Your task to perform on an android device: Open Google Maps Image 0: 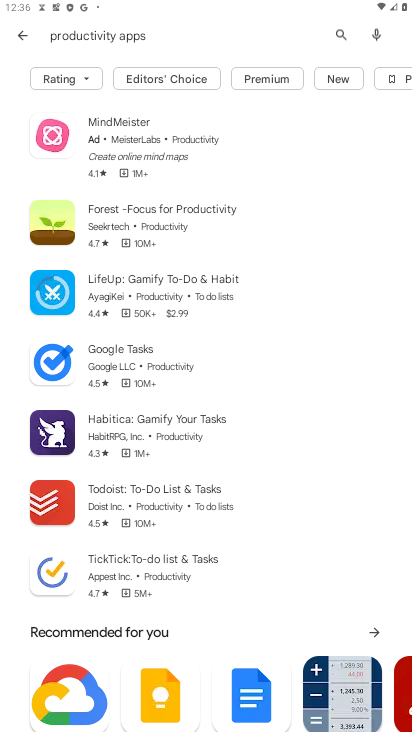
Step 0: press home button
Your task to perform on an android device: Open Google Maps Image 1: 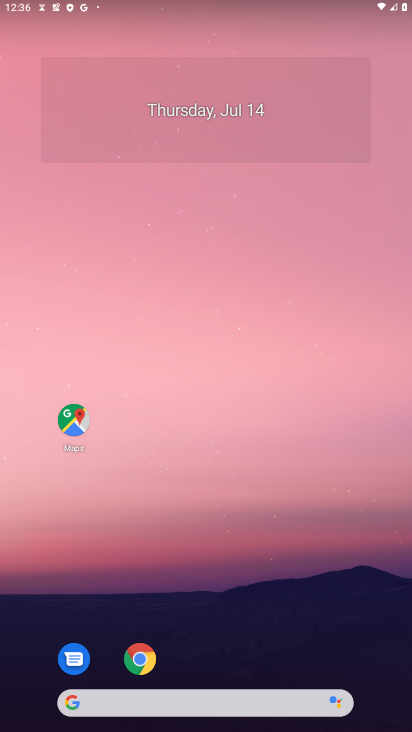
Step 1: click (84, 432)
Your task to perform on an android device: Open Google Maps Image 2: 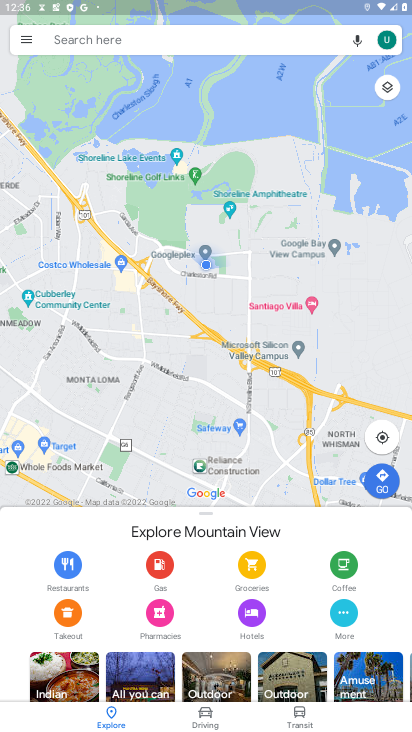
Step 2: task complete